Your task to perform on an android device: Open accessibility settings Image 0: 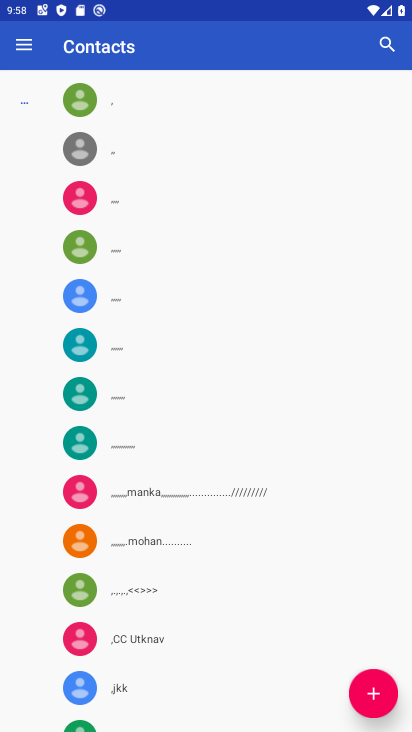
Step 0: press home button
Your task to perform on an android device: Open accessibility settings Image 1: 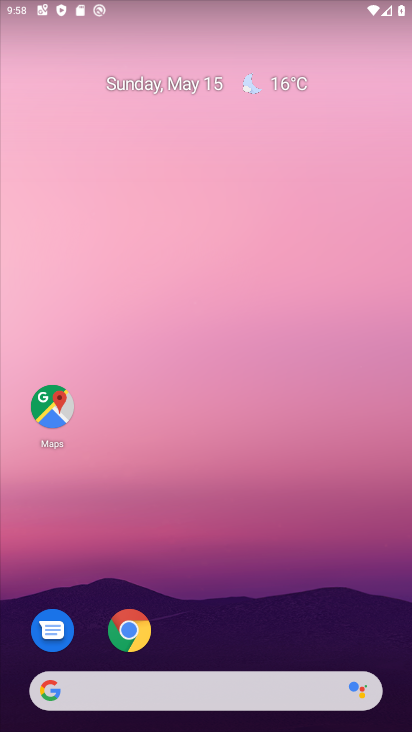
Step 1: drag from (193, 638) to (204, 244)
Your task to perform on an android device: Open accessibility settings Image 2: 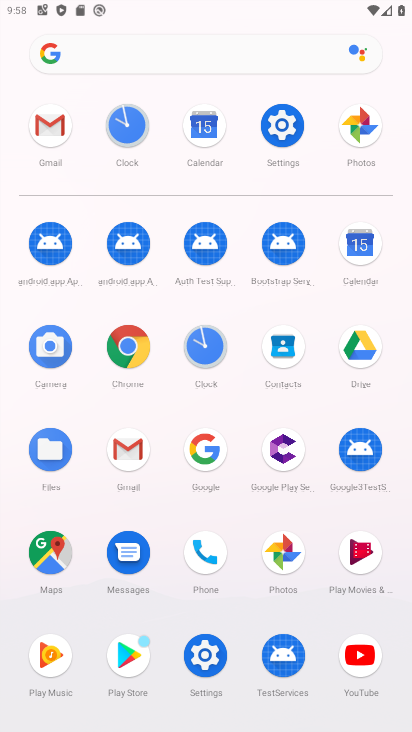
Step 2: click (269, 125)
Your task to perform on an android device: Open accessibility settings Image 3: 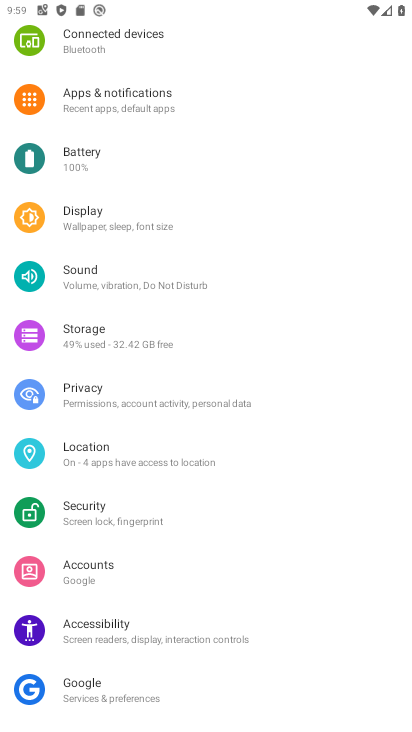
Step 3: click (113, 616)
Your task to perform on an android device: Open accessibility settings Image 4: 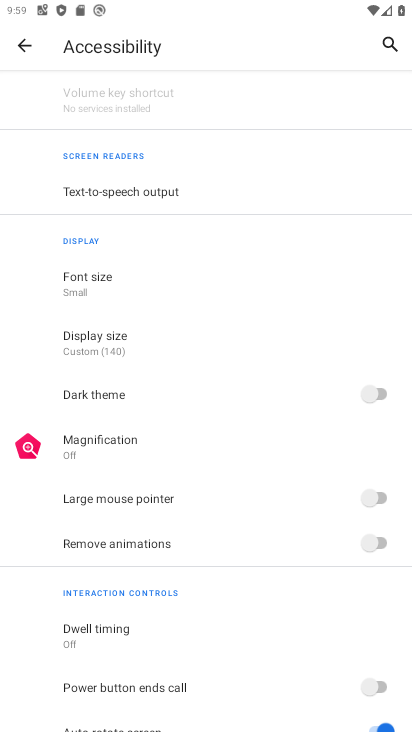
Step 4: task complete